Your task to perform on an android device: Open the stopwatch Image 0: 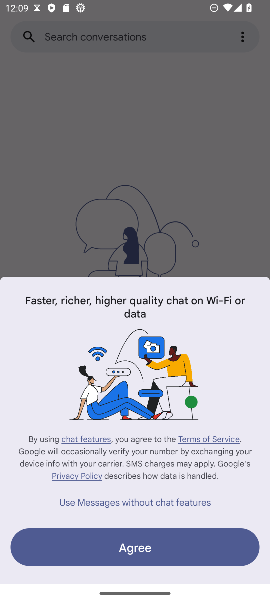
Step 0: press home button
Your task to perform on an android device: Open the stopwatch Image 1: 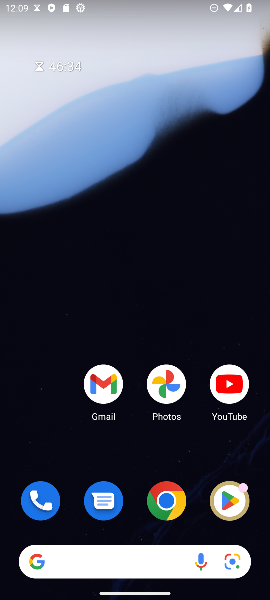
Step 1: drag from (137, 493) to (87, 53)
Your task to perform on an android device: Open the stopwatch Image 2: 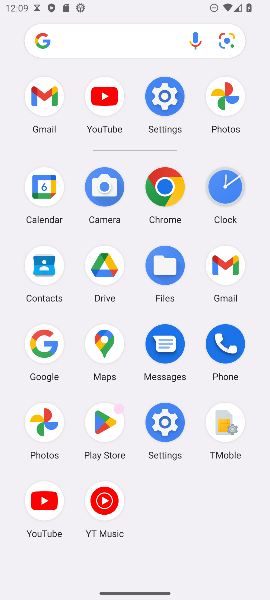
Step 2: click (232, 190)
Your task to perform on an android device: Open the stopwatch Image 3: 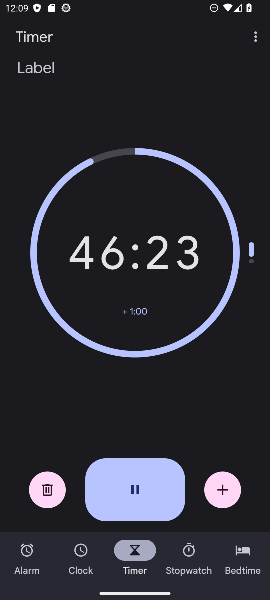
Step 3: click (202, 564)
Your task to perform on an android device: Open the stopwatch Image 4: 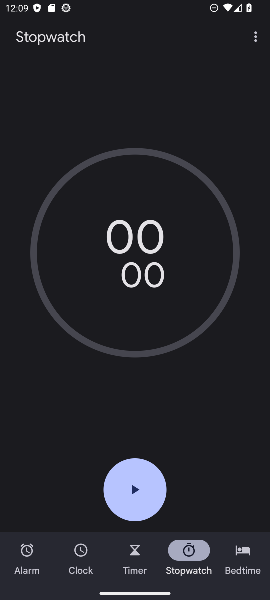
Step 4: task complete